Your task to perform on an android device: Open Chrome and go to the settings page Image 0: 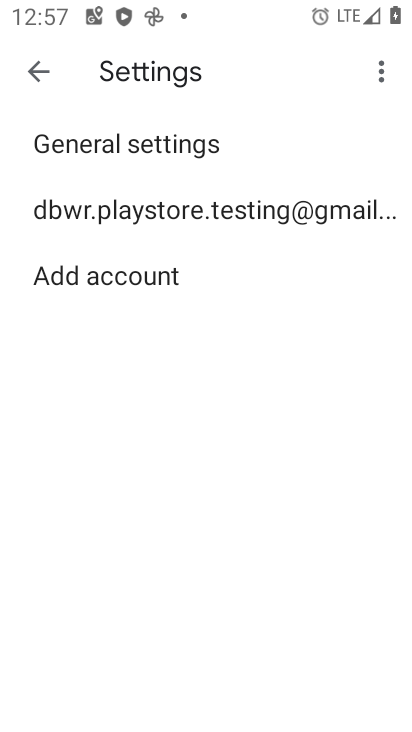
Step 0: press home button
Your task to perform on an android device: Open Chrome and go to the settings page Image 1: 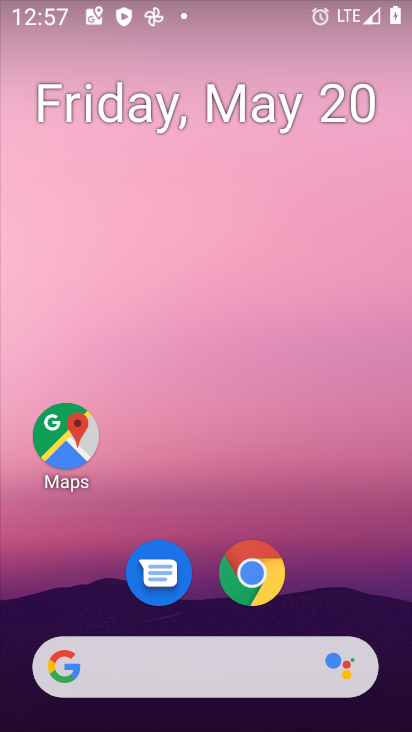
Step 1: click (261, 580)
Your task to perform on an android device: Open Chrome and go to the settings page Image 2: 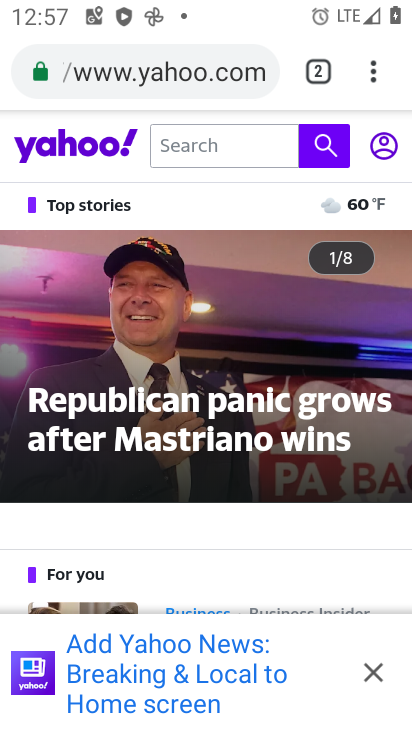
Step 2: click (367, 65)
Your task to perform on an android device: Open Chrome and go to the settings page Image 3: 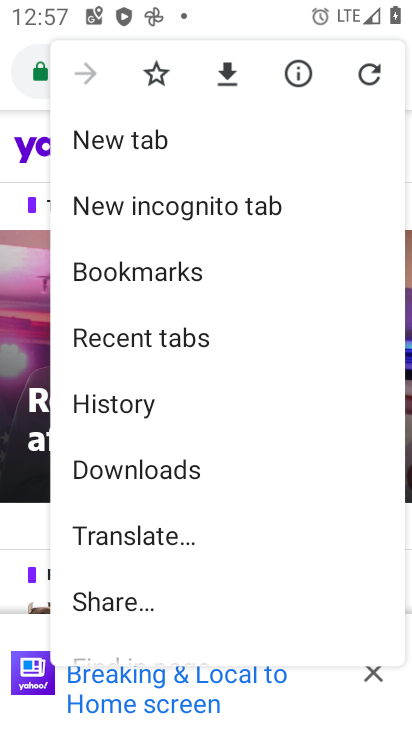
Step 3: drag from (227, 548) to (230, 181)
Your task to perform on an android device: Open Chrome and go to the settings page Image 4: 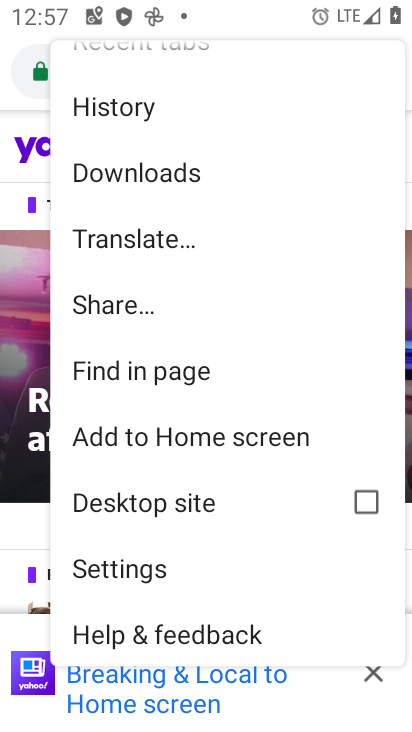
Step 4: drag from (181, 564) to (159, 346)
Your task to perform on an android device: Open Chrome and go to the settings page Image 5: 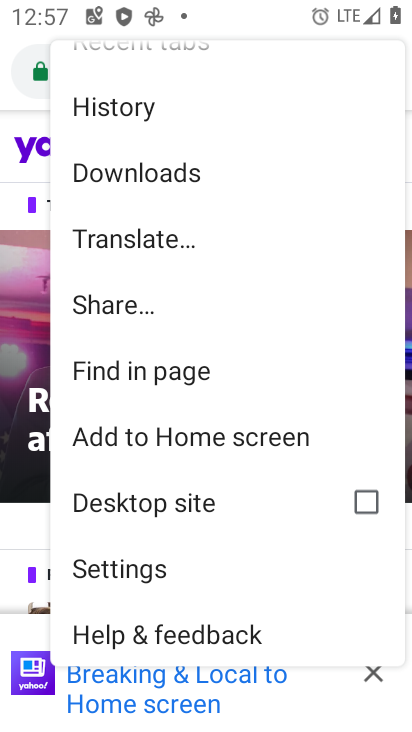
Step 5: click (130, 558)
Your task to perform on an android device: Open Chrome and go to the settings page Image 6: 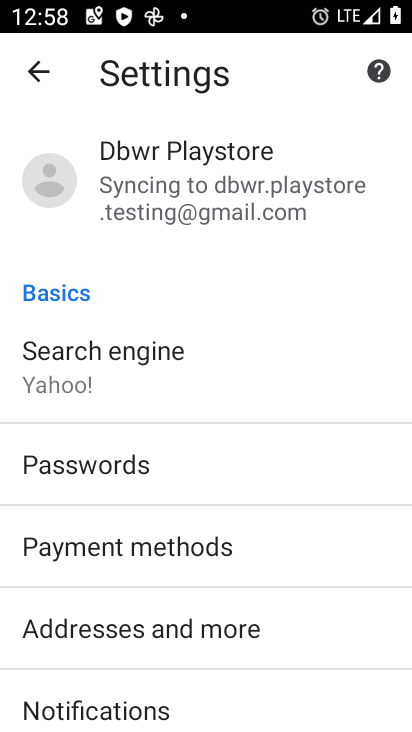
Step 6: task complete